Your task to perform on an android device: turn notification dots on Image 0: 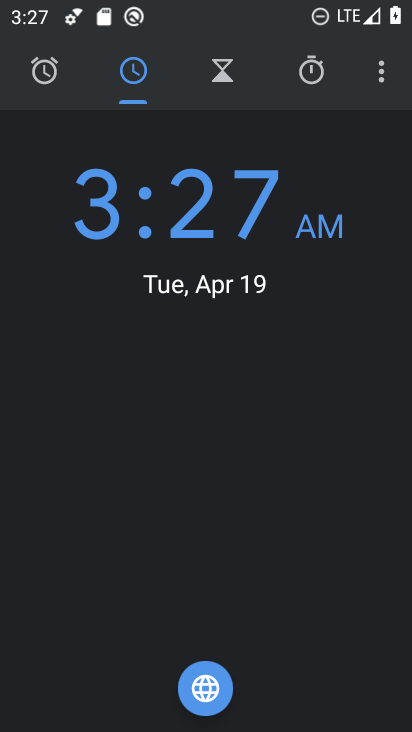
Step 0: press home button
Your task to perform on an android device: turn notification dots on Image 1: 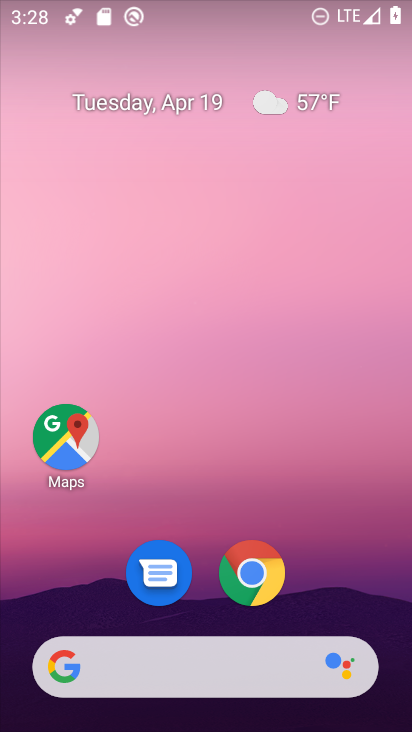
Step 1: drag from (338, 571) to (339, 6)
Your task to perform on an android device: turn notification dots on Image 2: 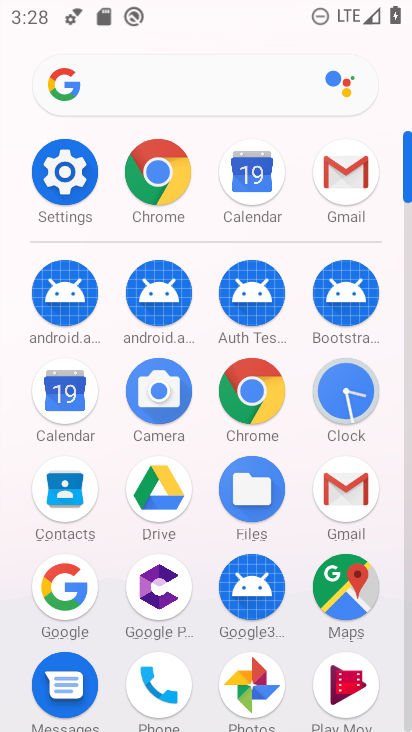
Step 2: click (61, 182)
Your task to perform on an android device: turn notification dots on Image 3: 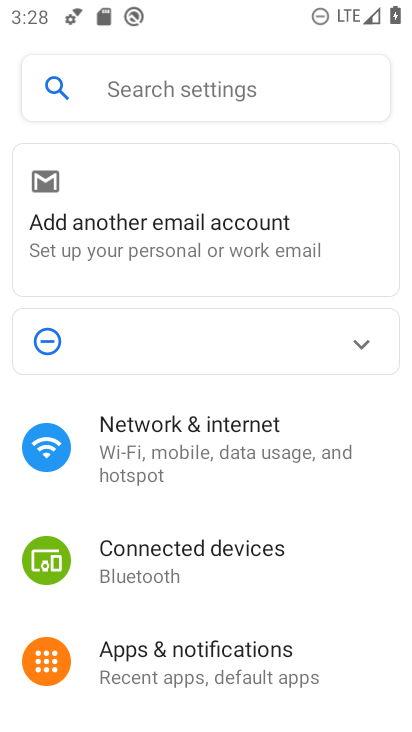
Step 3: click (190, 647)
Your task to perform on an android device: turn notification dots on Image 4: 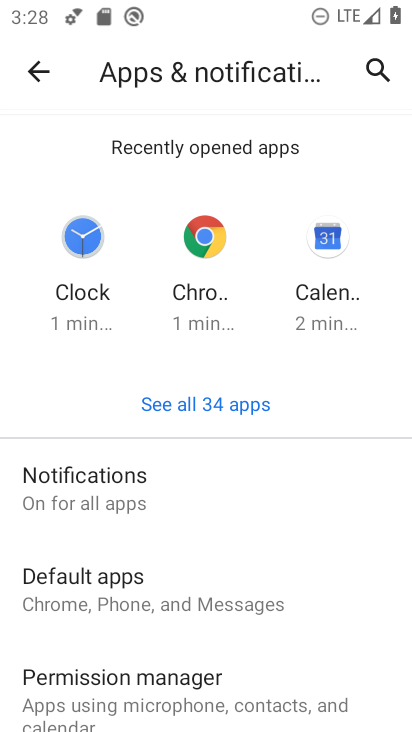
Step 4: click (108, 502)
Your task to perform on an android device: turn notification dots on Image 5: 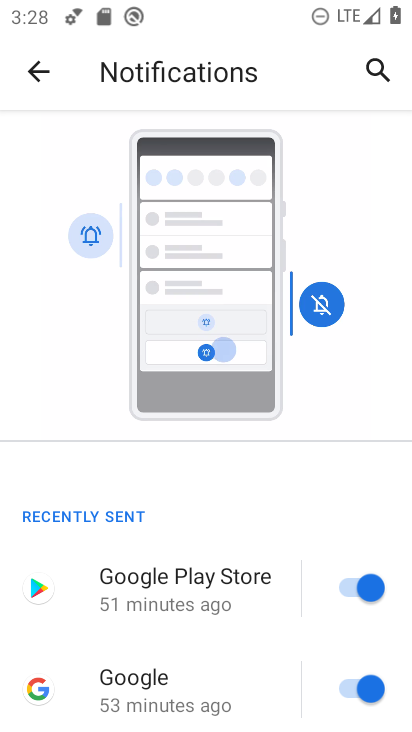
Step 5: drag from (185, 632) to (182, 143)
Your task to perform on an android device: turn notification dots on Image 6: 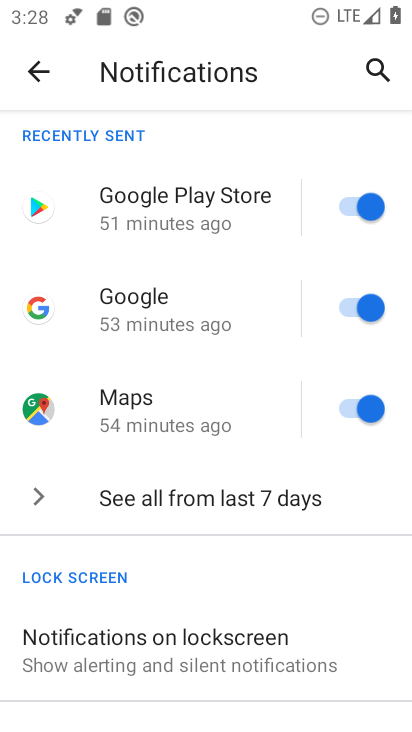
Step 6: drag from (196, 518) to (159, 213)
Your task to perform on an android device: turn notification dots on Image 7: 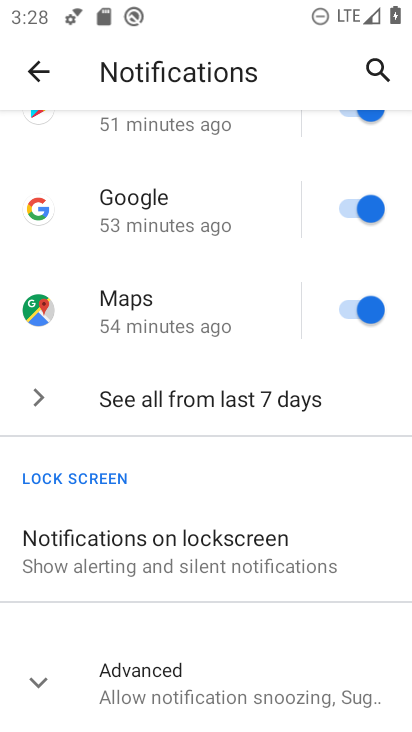
Step 7: click (40, 686)
Your task to perform on an android device: turn notification dots on Image 8: 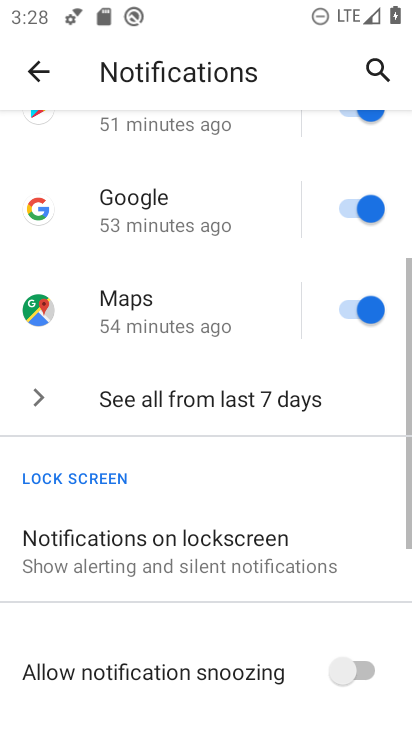
Step 8: drag from (183, 678) to (186, 249)
Your task to perform on an android device: turn notification dots on Image 9: 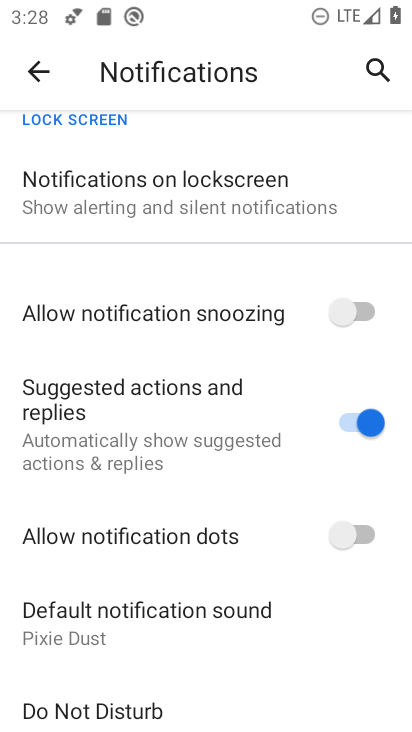
Step 9: click (342, 540)
Your task to perform on an android device: turn notification dots on Image 10: 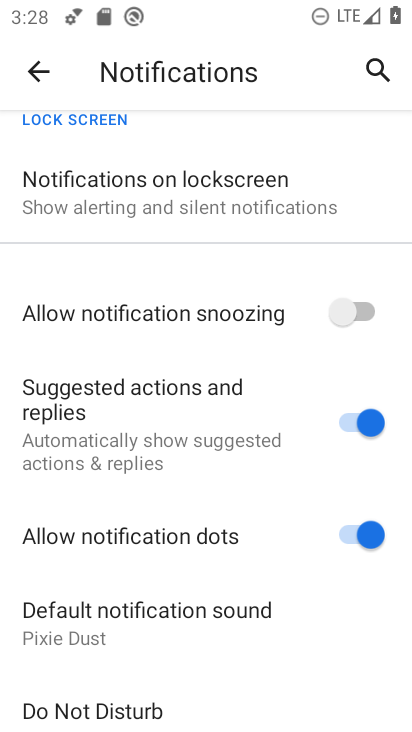
Step 10: task complete